Your task to perform on an android device: Go to CNN.com Image 0: 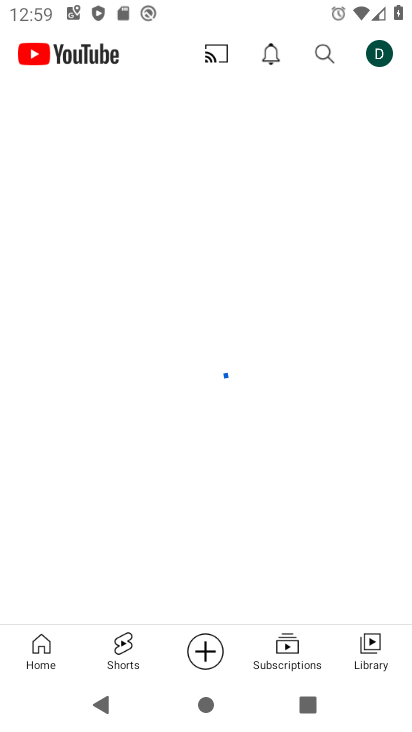
Step 0: press home button
Your task to perform on an android device: Go to CNN.com Image 1: 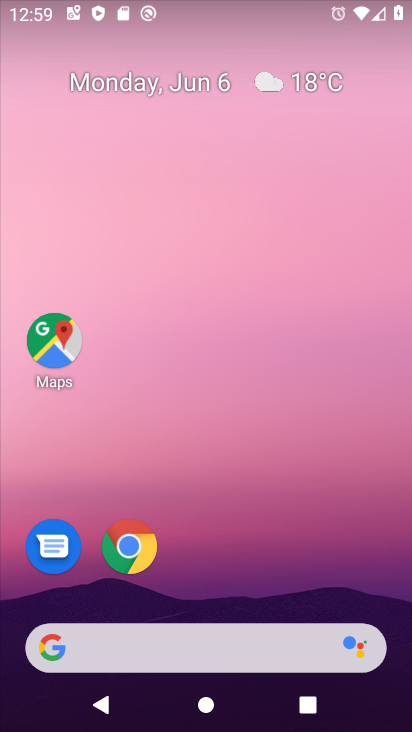
Step 1: click (251, 656)
Your task to perform on an android device: Go to CNN.com Image 2: 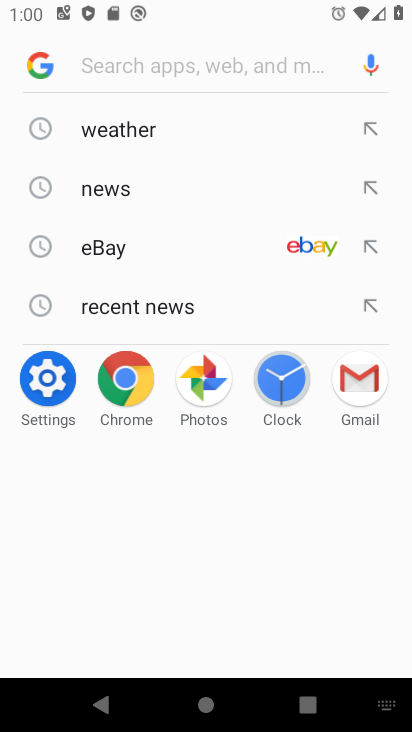
Step 2: type " CNN.com"
Your task to perform on an android device: Go to CNN.com Image 3: 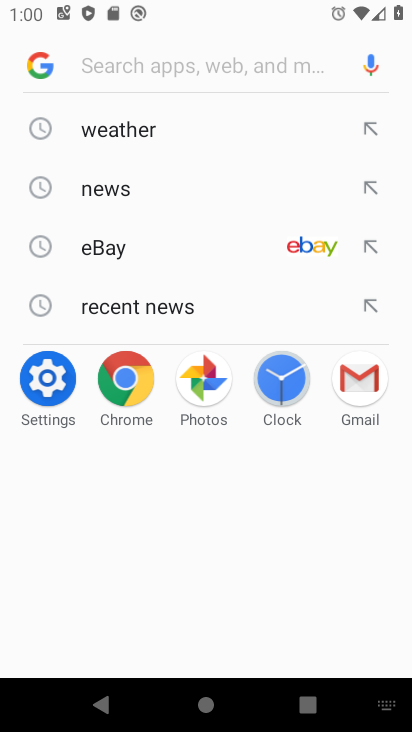
Step 3: click (201, 63)
Your task to perform on an android device: Go to CNN.com Image 4: 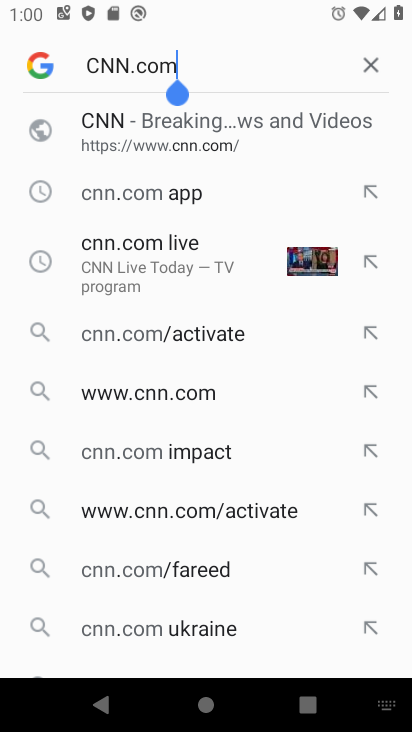
Step 4: click (232, 130)
Your task to perform on an android device: Go to CNN.com Image 5: 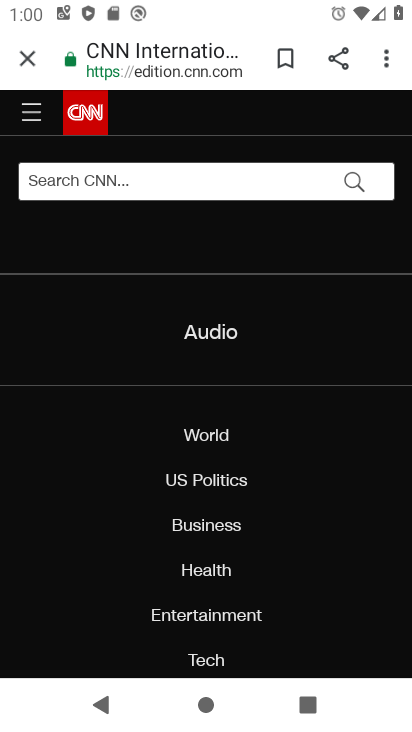
Step 5: task complete